Your task to perform on an android device: turn off sleep mode Image 0: 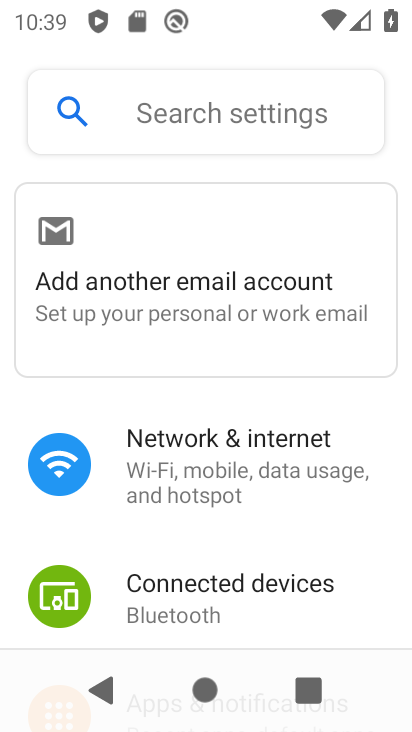
Step 0: drag from (241, 582) to (294, 63)
Your task to perform on an android device: turn off sleep mode Image 1: 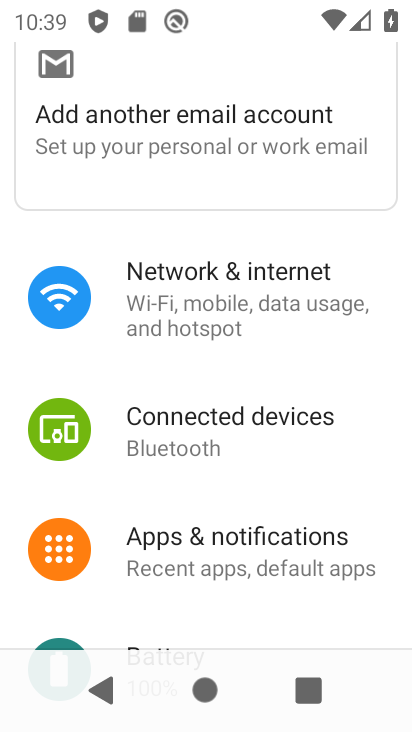
Step 1: drag from (194, 596) to (265, 197)
Your task to perform on an android device: turn off sleep mode Image 2: 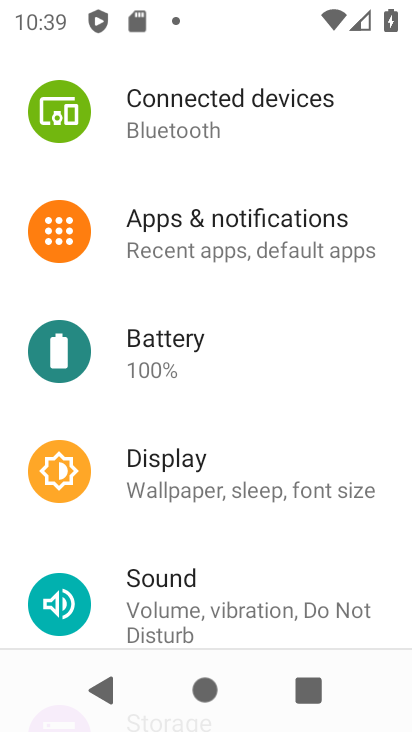
Step 2: click (195, 450)
Your task to perform on an android device: turn off sleep mode Image 3: 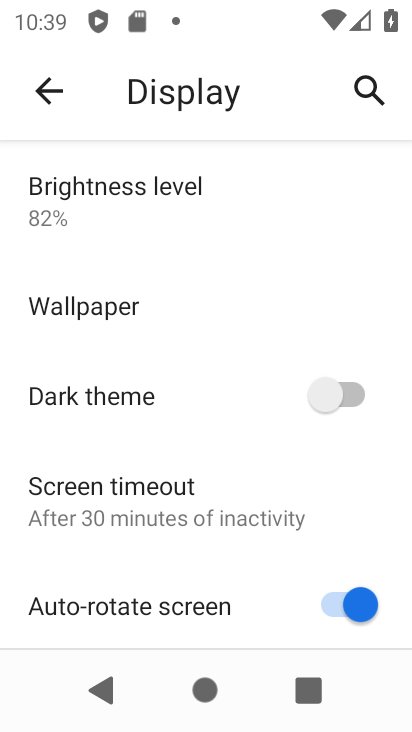
Step 3: click (205, 506)
Your task to perform on an android device: turn off sleep mode Image 4: 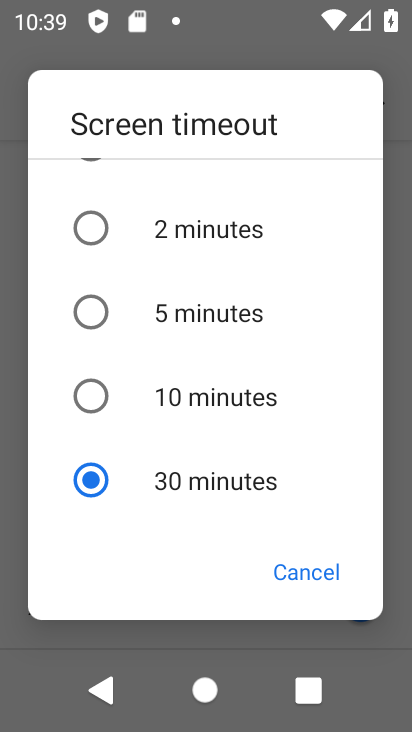
Step 4: task complete